Your task to perform on an android device: toggle translation in the chrome app Image 0: 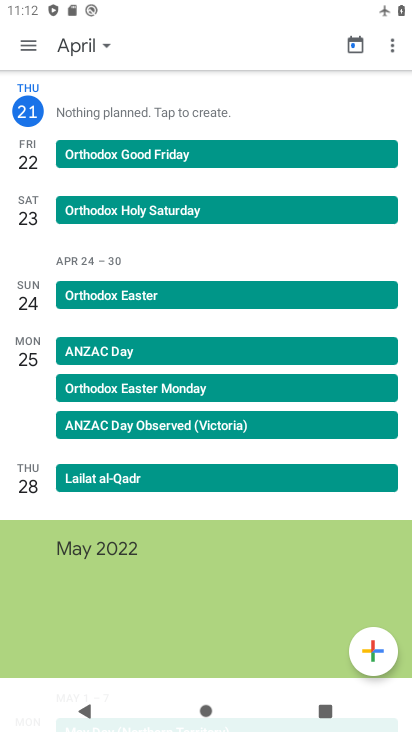
Step 0: press home button
Your task to perform on an android device: toggle translation in the chrome app Image 1: 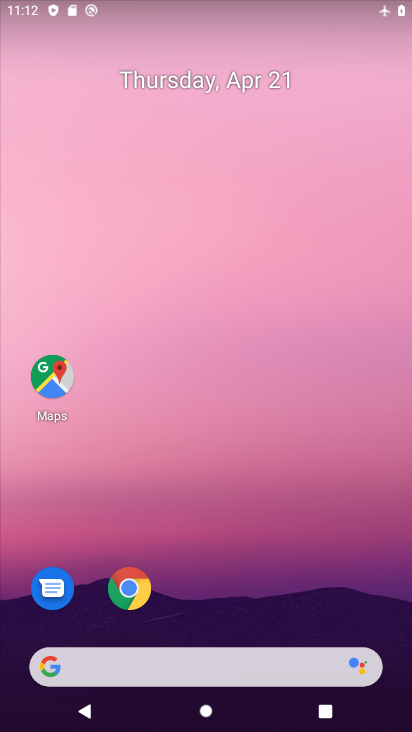
Step 1: click (140, 597)
Your task to perform on an android device: toggle translation in the chrome app Image 2: 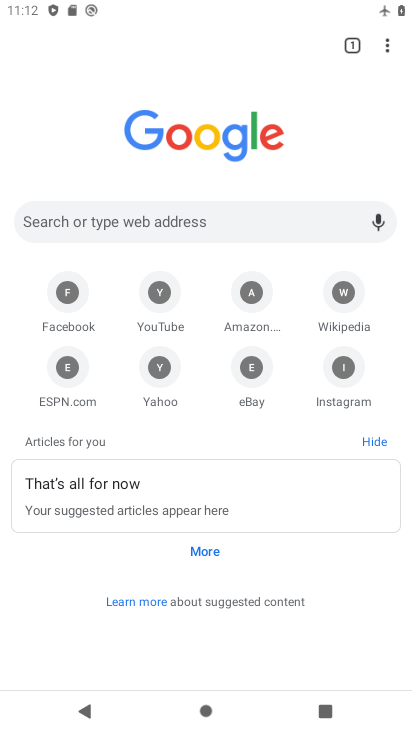
Step 2: click (390, 50)
Your task to perform on an android device: toggle translation in the chrome app Image 3: 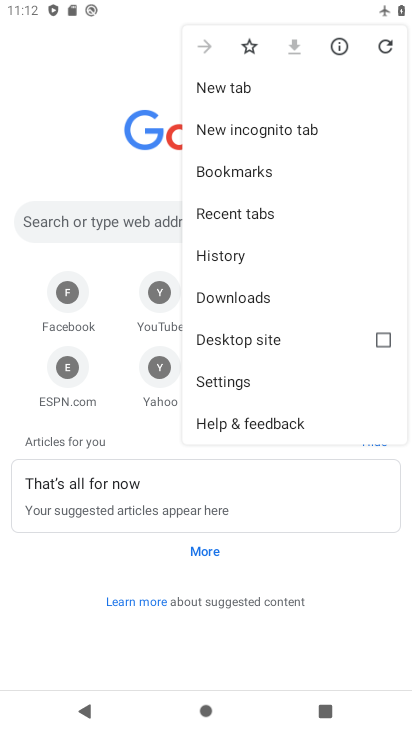
Step 3: click (251, 387)
Your task to perform on an android device: toggle translation in the chrome app Image 4: 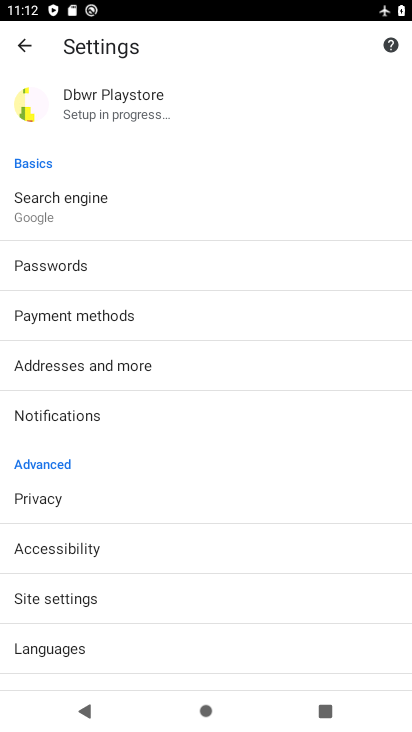
Step 4: click (143, 651)
Your task to perform on an android device: toggle translation in the chrome app Image 5: 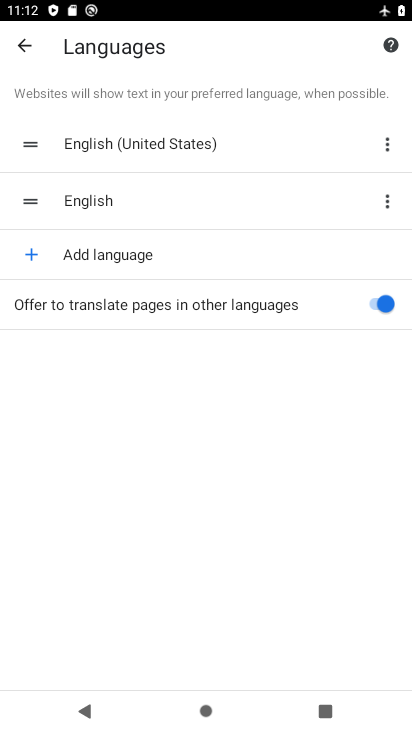
Step 5: click (373, 307)
Your task to perform on an android device: toggle translation in the chrome app Image 6: 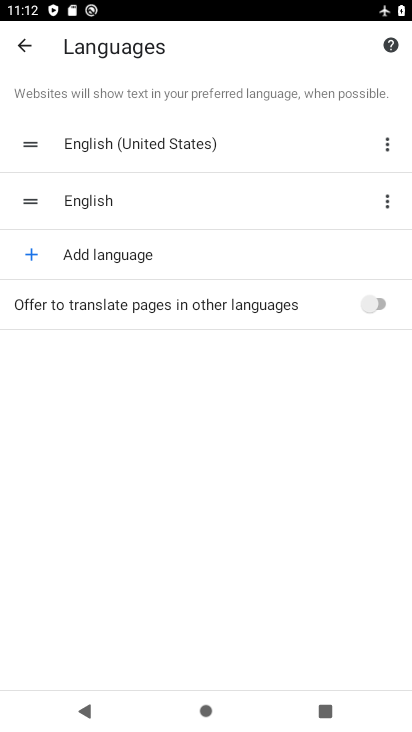
Step 6: task complete